Your task to perform on an android device: toggle notifications settings in the gmail app Image 0: 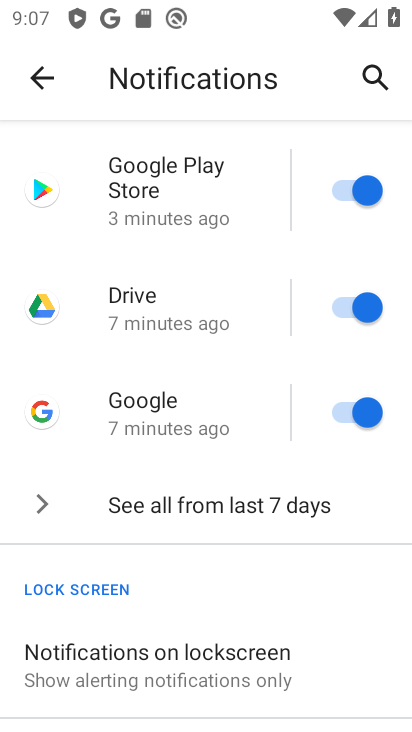
Step 0: press home button
Your task to perform on an android device: toggle notifications settings in the gmail app Image 1: 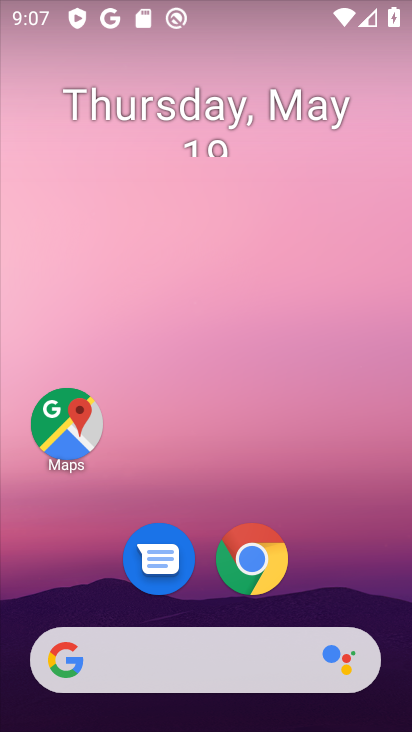
Step 1: drag from (319, 568) to (354, 139)
Your task to perform on an android device: toggle notifications settings in the gmail app Image 2: 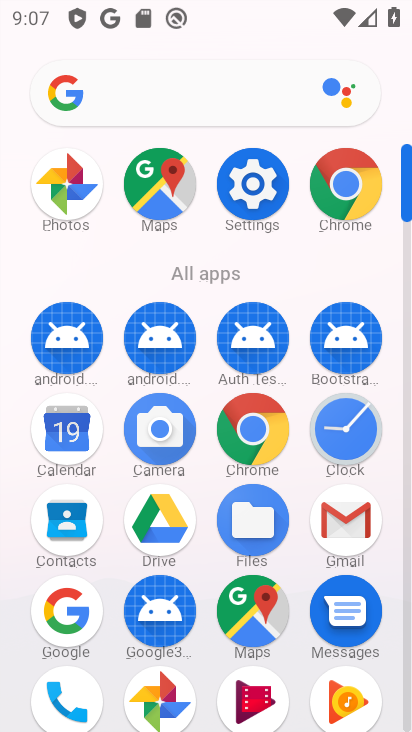
Step 2: click (347, 528)
Your task to perform on an android device: toggle notifications settings in the gmail app Image 3: 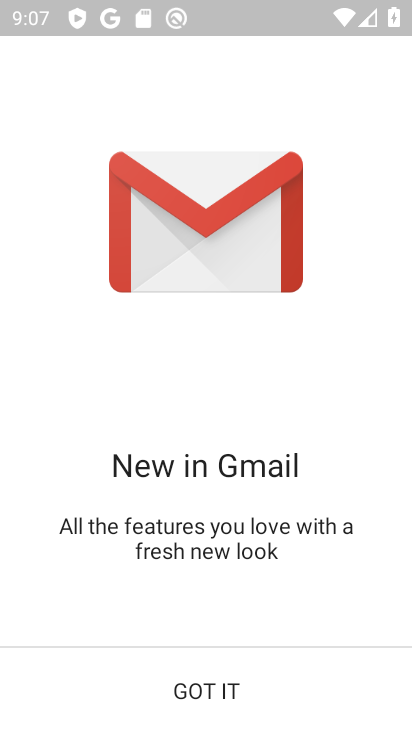
Step 3: click (205, 713)
Your task to perform on an android device: toggle notifications settings in the gmail app Image 4: 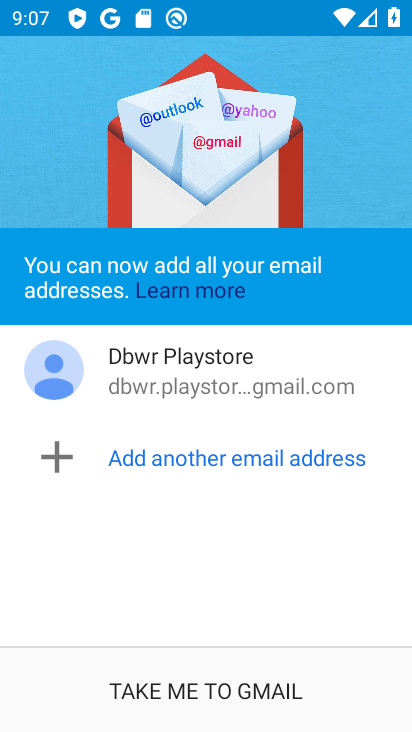
Step 4: click (205, 701)
Your task to perform on an android device: toggle notifications settings in the gmail app Image 5: 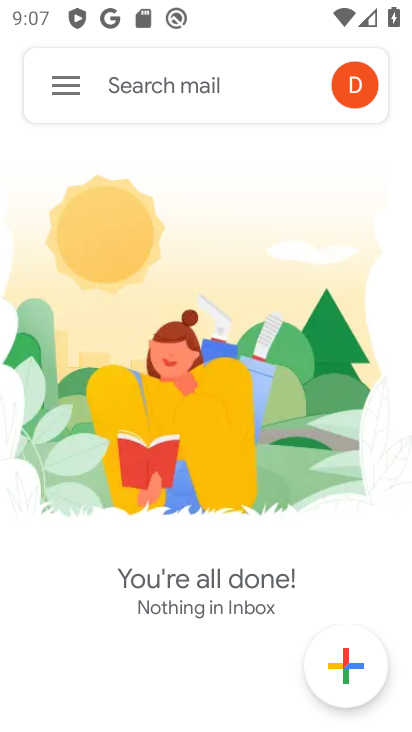
Step 5: click (79, 79)
Your task to perform on an android device: toggle notifications settings in the gmail app Image 6: 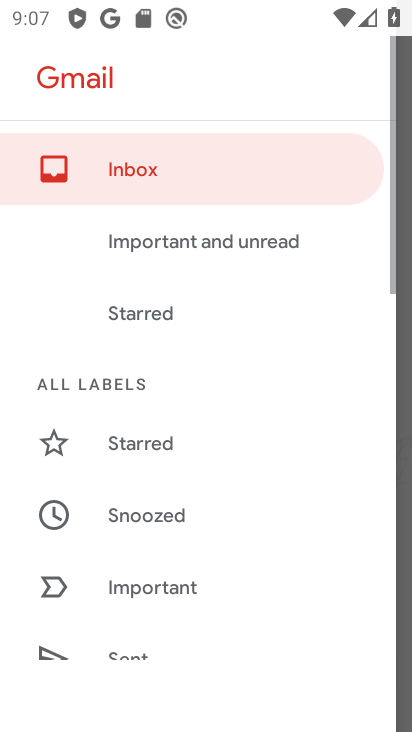
Step 6: drag from (153, 615) to (262, 121)
Your task to perform on an android device: toggle notifications settings in the gmail app Image 7: 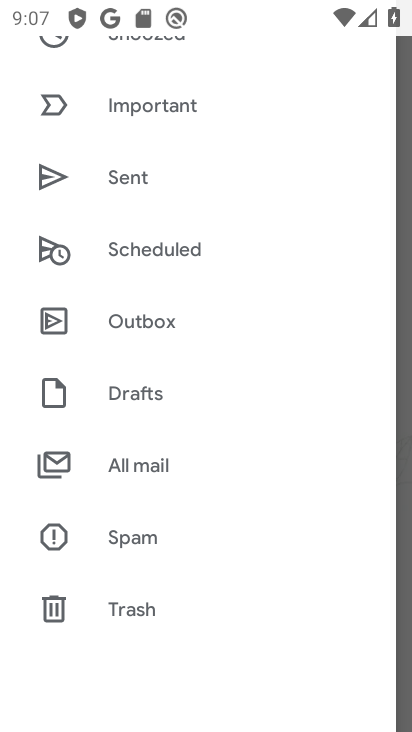
Step 7: drag from (141, 612) to (197, 253)
Your task to perform on an android device: toggle notifications settings in the gmail app Image 8: 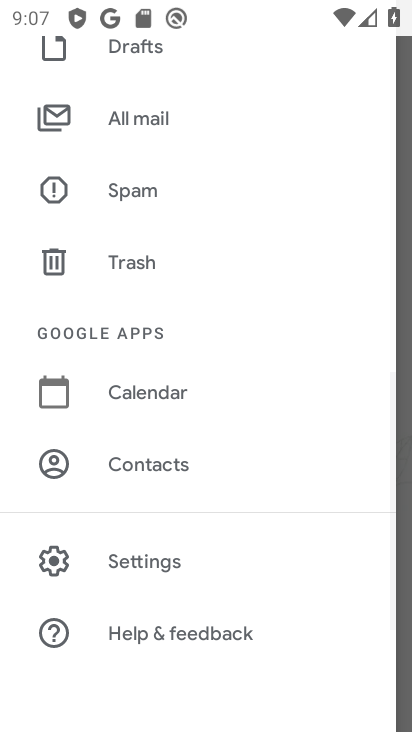
Step 8: click (126, 571)
Your task to perform on an android device: toggle notifications settings in the gmail app Image 9: 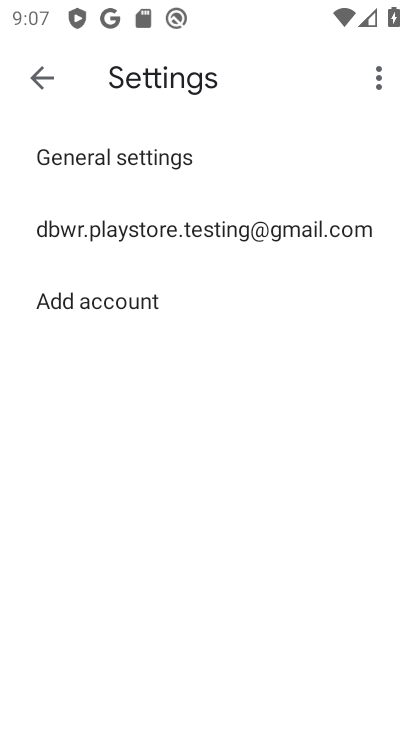
Step 9: click (220, 238)
Your task to perform on an android device: toggle notifications settings in the gmail app Image 10: 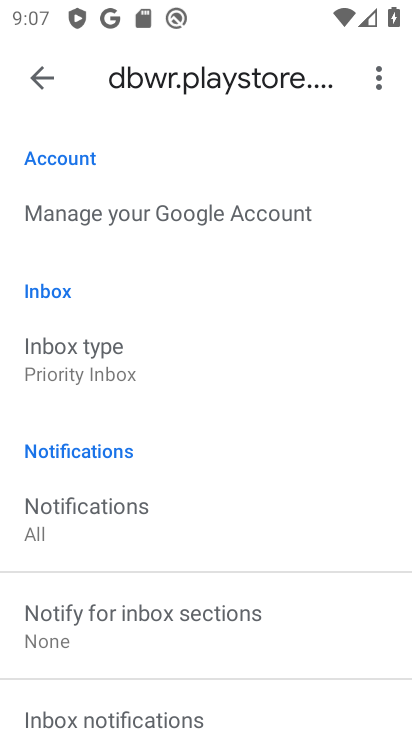
Step 10: drag from (180, 547) to (214, 220)
Your task to perform on an android device: toggle notifications settings in the gmail app Image 11: 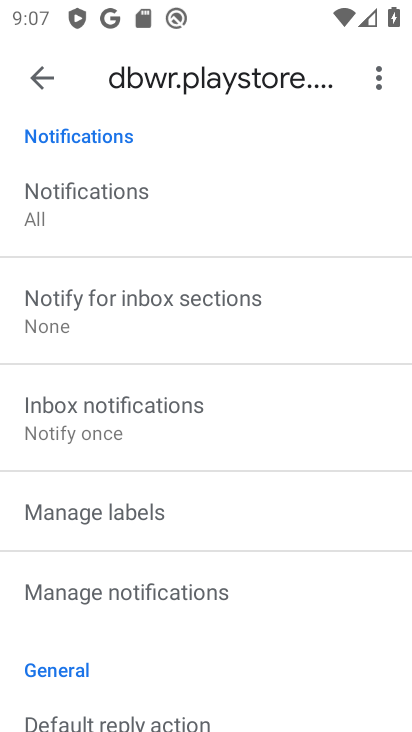
Step 11: click (128, 580)
Your task to perform on an android device: toggle notifications settings in the gmail app Image 12: 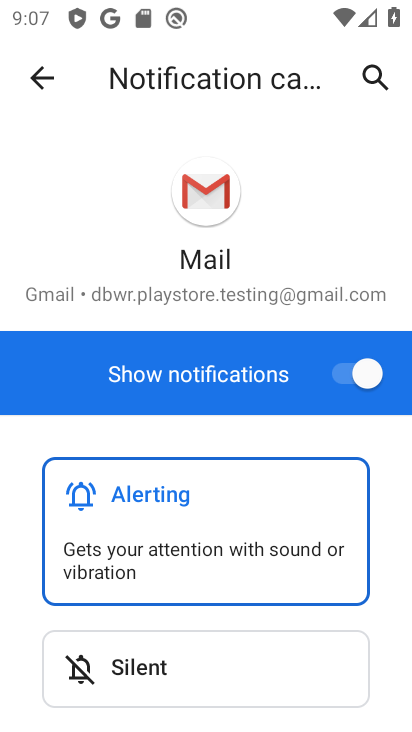
Step 12: click (360, 368)
Your task to perform on an android device: toggle notifications settings in the gmail app Image 13: 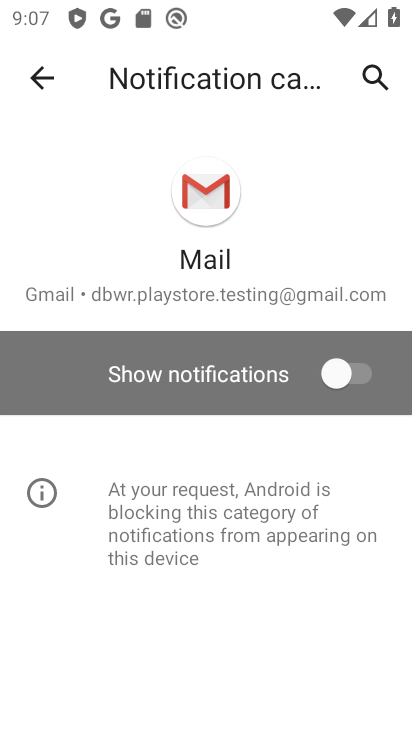
Step 13: task complete